Your task to perform on an android device: Open the map Image 0: 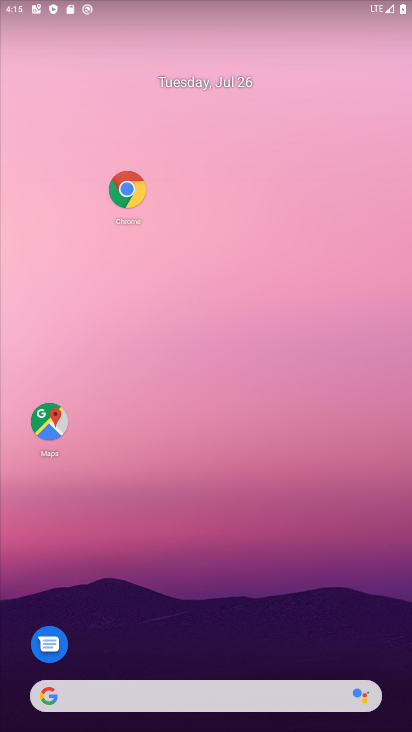
Step 0: click (51, 418)
Your task to perform on an android device: Open the map Image 1: 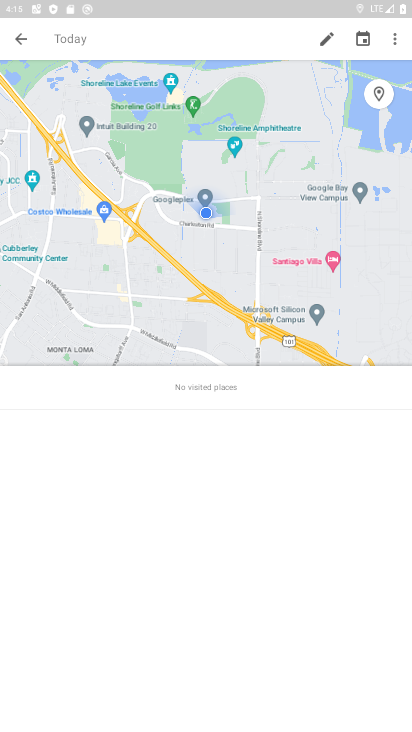
Step 1: click (14, 39)
Your task to perform on an android device: Open the map Image 2: 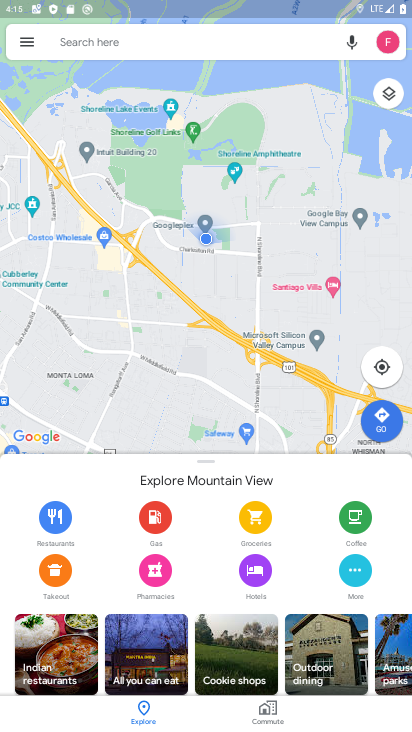
Step 2: task complete